Your task to perform on an android device: Open calendar and show me the fourth week of next month Image 0: 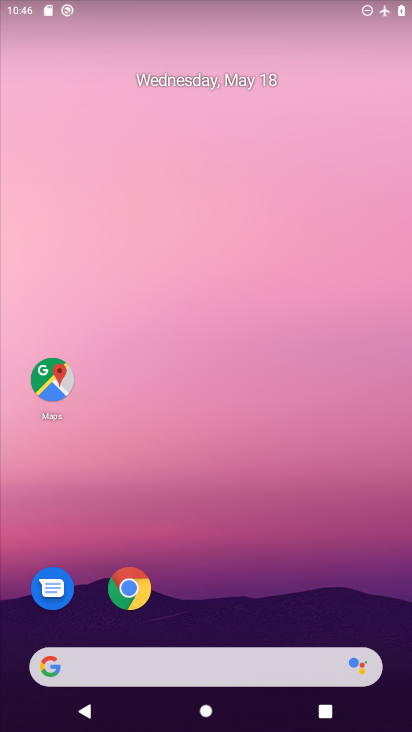
Step 0: drag from (250, 612) to (251, 3)
Your task to perform on an android device: Open calendar and show me the fourth week of next month Image 1: 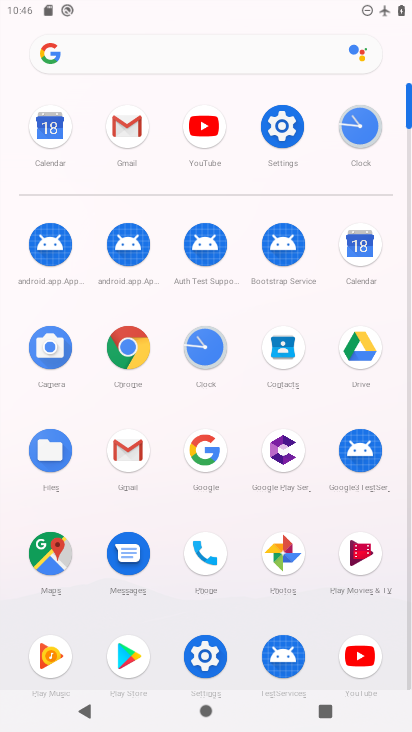
Step 1: click (41, 137)
Your task to perform on an android device: Open calendar and show me the fourth week of next month Image 2: 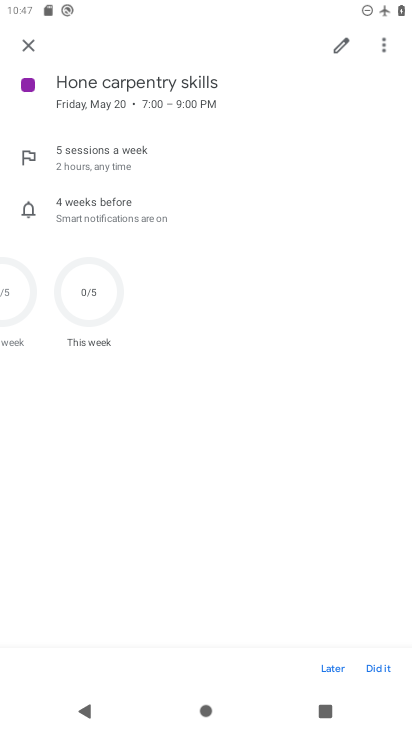
Step 2: click (28, 49)
Your task to perform on an android device: Open calendar and show me the fourth week of next month Image 3: 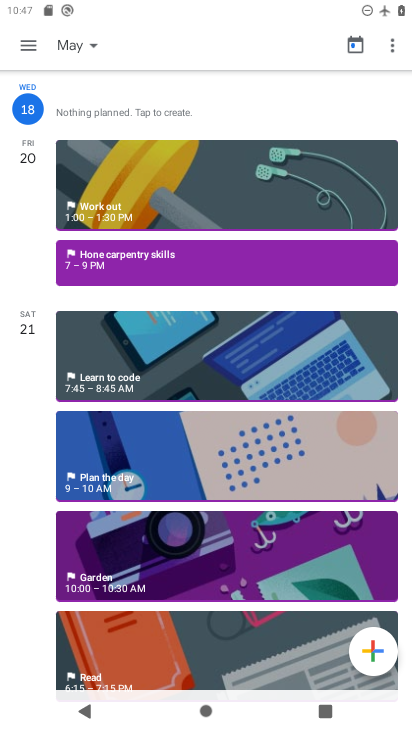
Step 3: click (97, 47)
Your task to perform on an android device: Open calendar and show me the fourth week of next month Image 4: 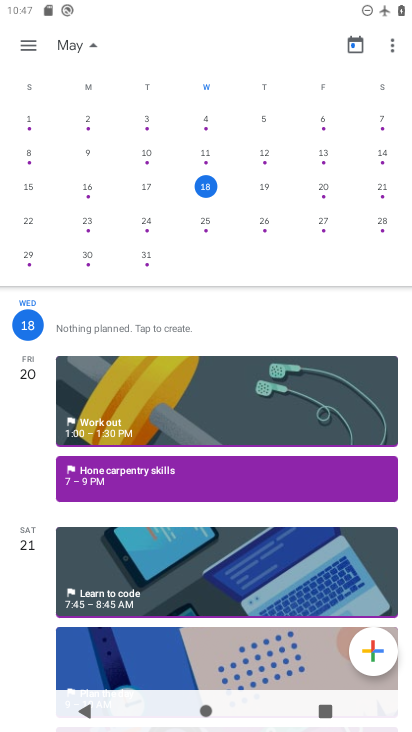
Step 4: drag from (343, 187) to (15, 149)
Your task to perform on an android device: Open calendar and show me the fourth week of next month Image 5: 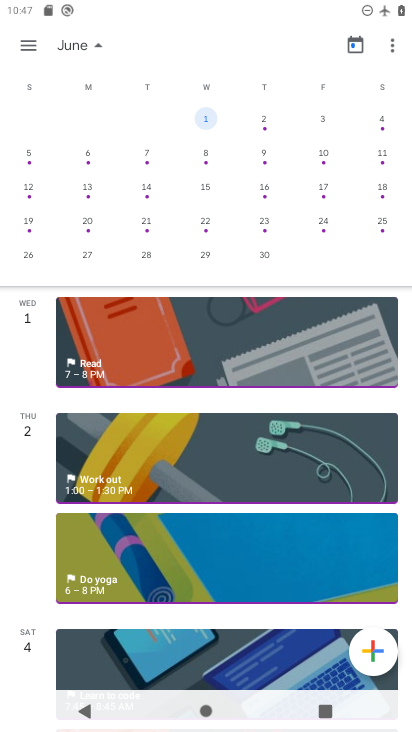
Step 5: click (35, 46)
Your task to perform on an android device: Open calendar and show me the fourth week of next month Image 6: 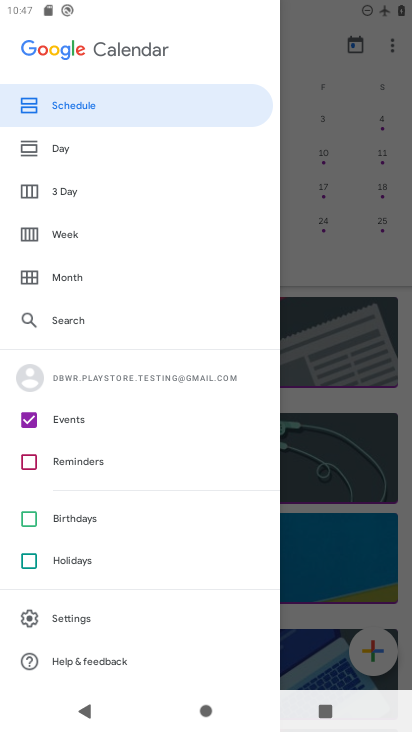
Step 6: click (66, 231)
Your task to perform on an android device: Open calendar and show me the fourth week of next month Image 7: 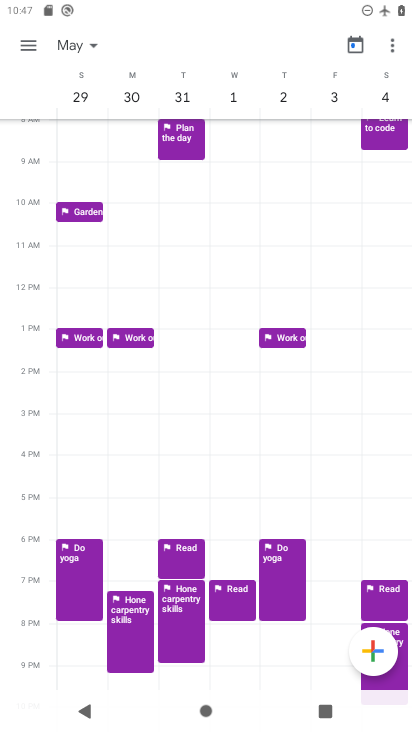
Step 7: task complete